Your task to perform on an android device: allow cookies in the chrome app Image 0: 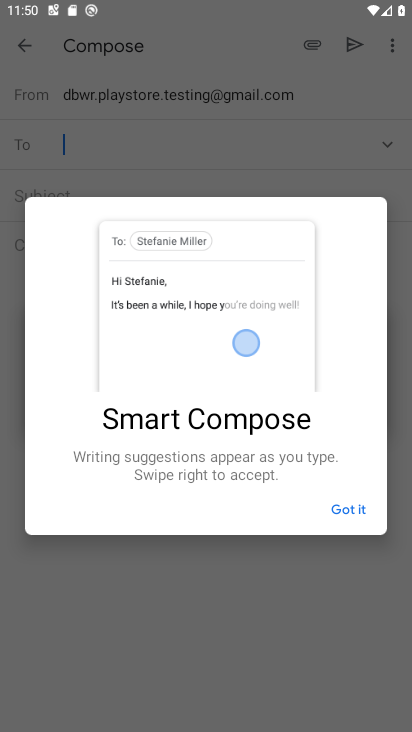
Step 0: press home button
Your task to perform on an android device: allow cookies in the chrome app Image 1: 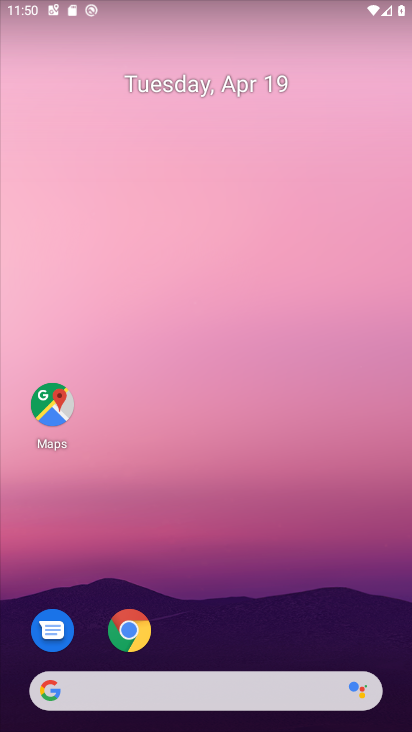
Step 1: drag from (196, 511) to (215, 51)
Your task to perform on an android device: allow cookies in the chrome app Image 2: 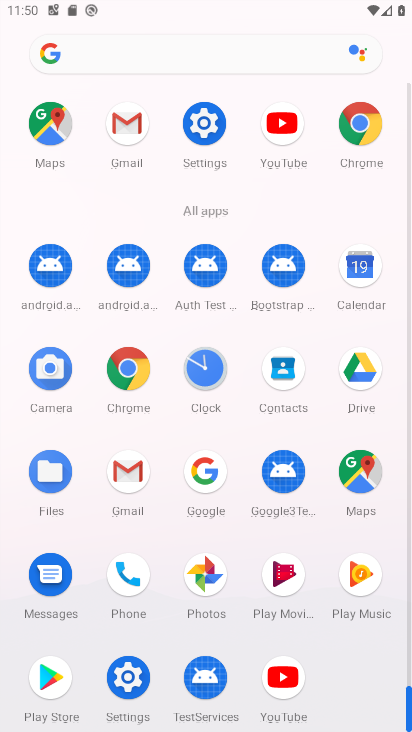
Step 2: click (138, 369)
Your task to perform on an android device: allow cookies in the chrome app Image 3: 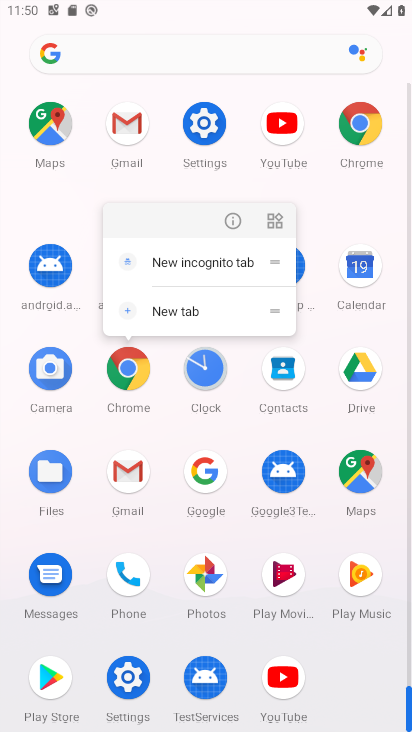
Step 3: click (131, 382)
Your task to perform on an android device: allow cookies in the chrome app Image 4: 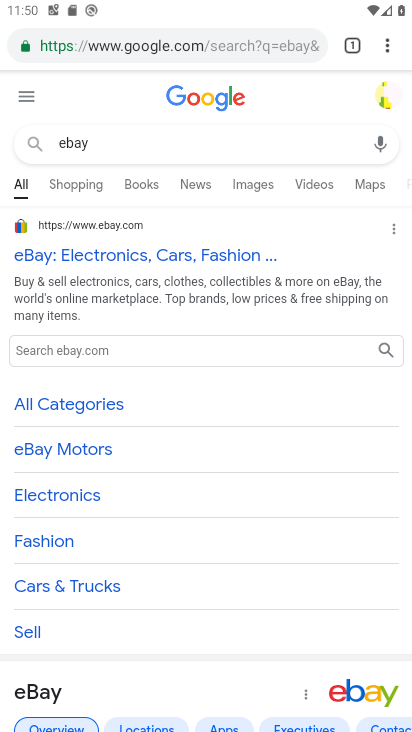
Step 4: drag from (384, 46) to (234, 552)
Your task to perform on an android device: allow cookies in the chrome app Image 5: 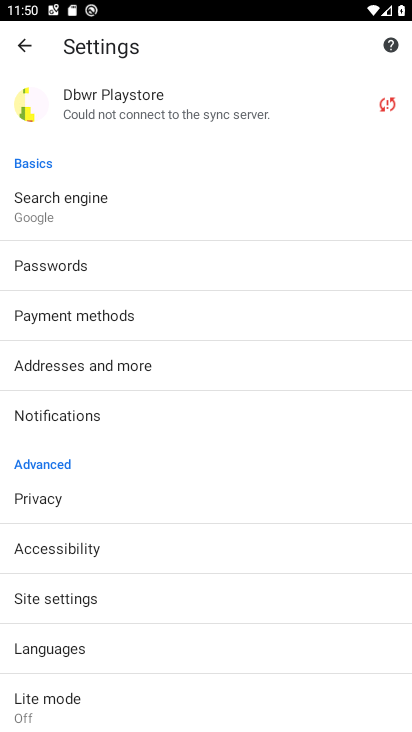
Step 5: click (82, 601)
Your task to perform on an android device: allow cookies in the chrome app Image 6: 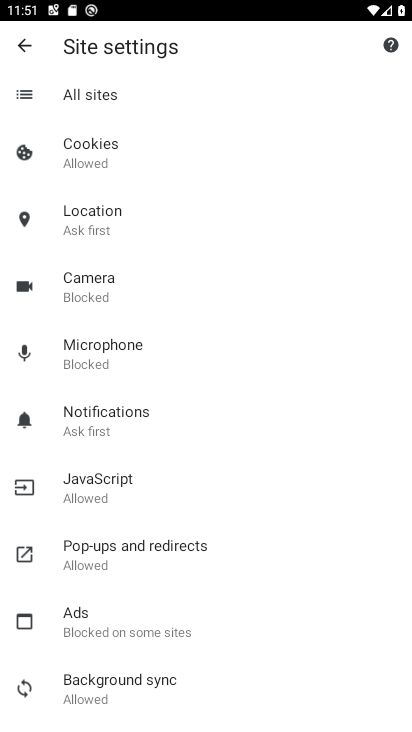
Step 6: click (100, 151)
Your task to perform on an android device: allow cookies in the chrome app Image 7: 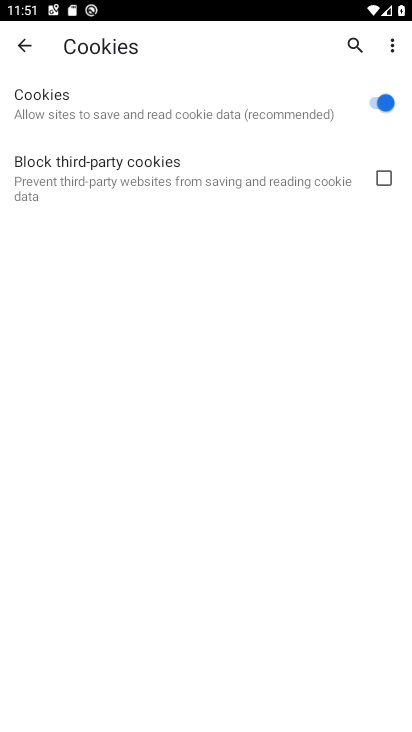
Step 7: task complete